Your task to perform on an android device: toggle improve location accuracy Image 0: 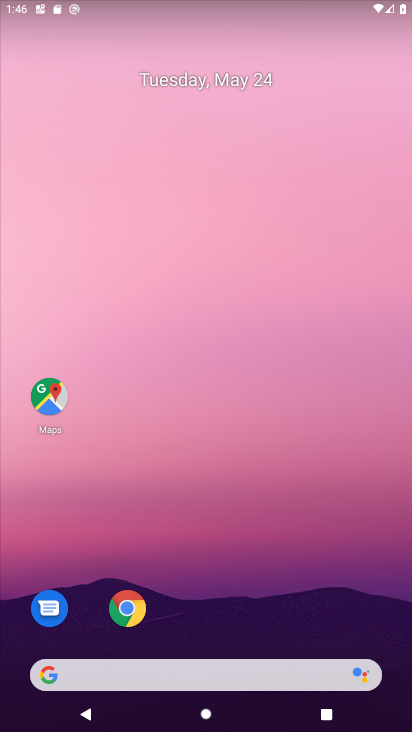
Step 0: drag from (313, 574) to (237, 126)
Your task to perform on an android device: toggle improve location accuracy Image 1: 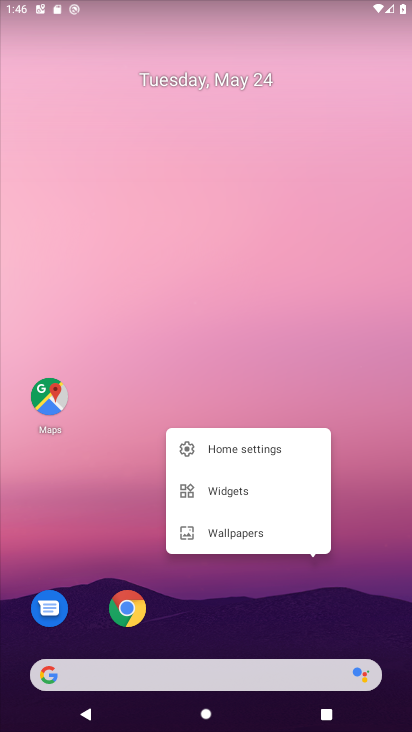
Step 1: click (237, 126)
Your task to perform on an android device: toggle improve location accuracy Image 2: 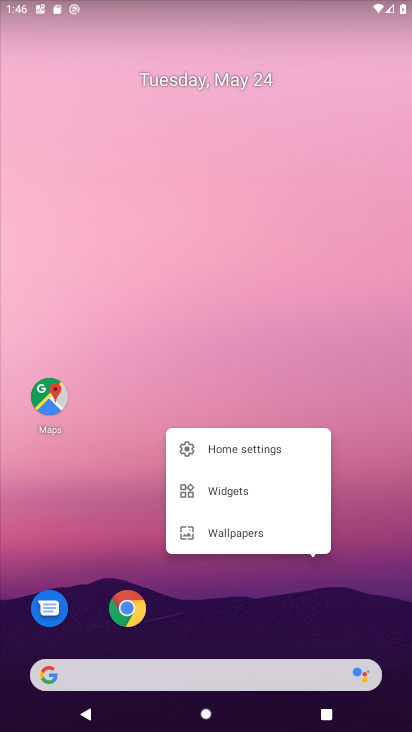
Step 2: click (237, 126)
Your task to perform on an android device: toggle improve location accuracy Image 3: 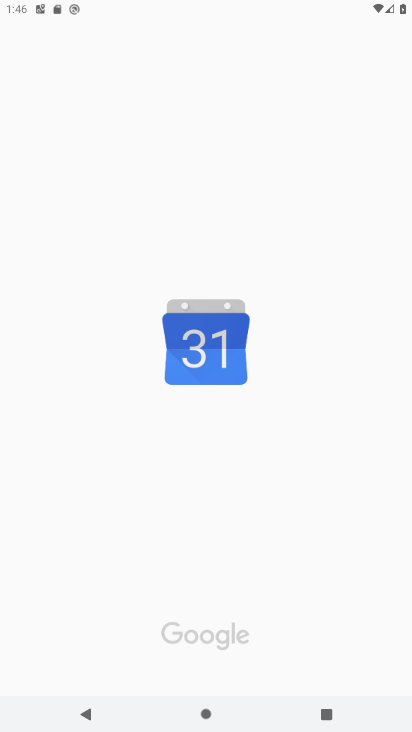
Step 3: click (284, 611)
Your task to perform on an android device: toggle improve location accuracy Image 4: 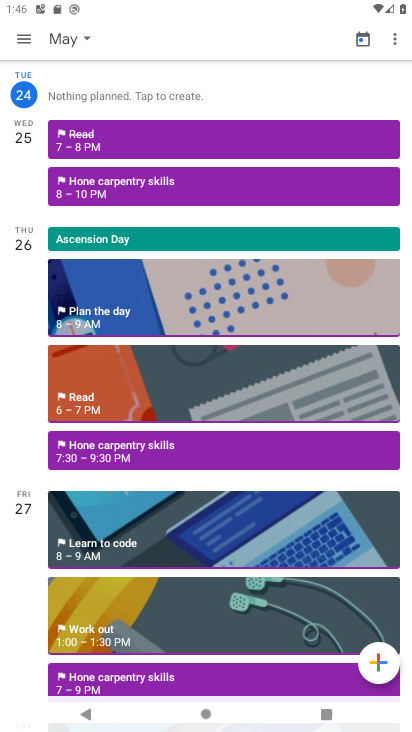
Step 4: press home button
Your task to perform on an android device: toggle improve location accuracy Image 5: 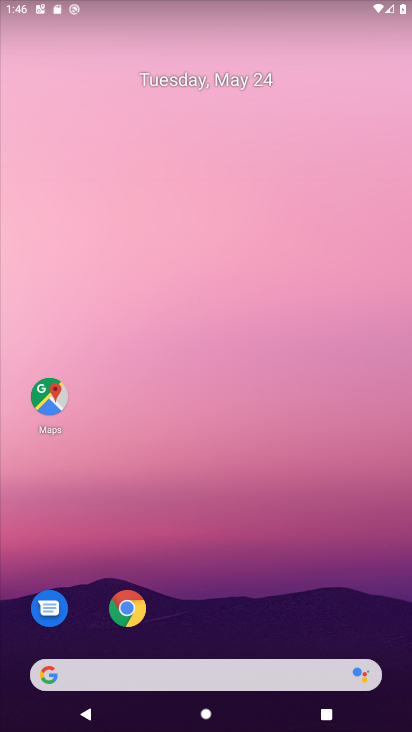
Step 5: drag from (294, 606) to (201, 86)
Your task to perform on an android device: toggle improve location accuracy Image 6: 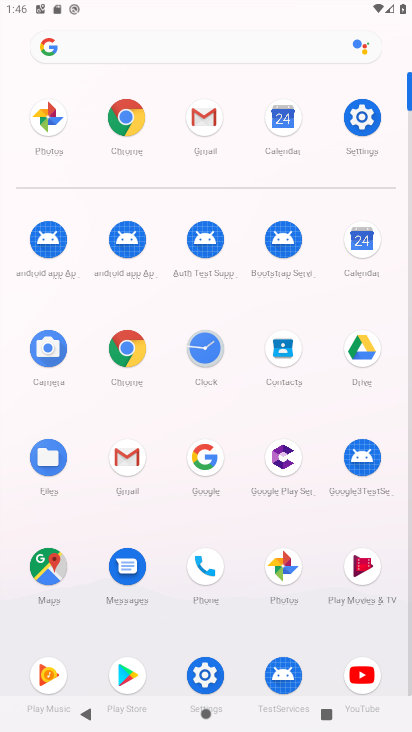
Step 6: click (347, 129)
Your task to perform on an android device: toggle improve location accuracy Image 7: 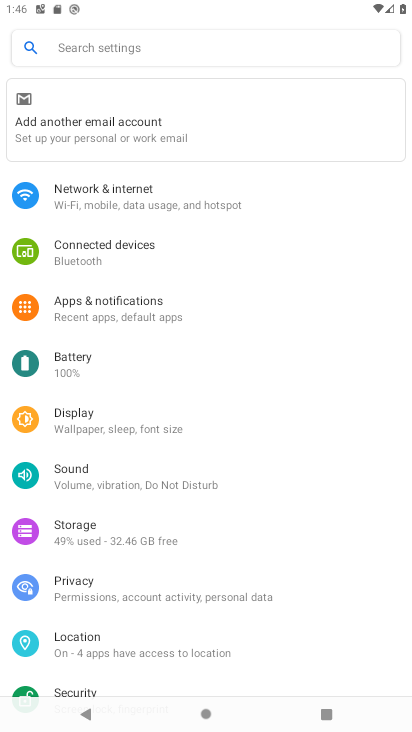
Step 7: click (219, 637)
Your task to perform on an android device: toggle improve location accuracy Image 8: 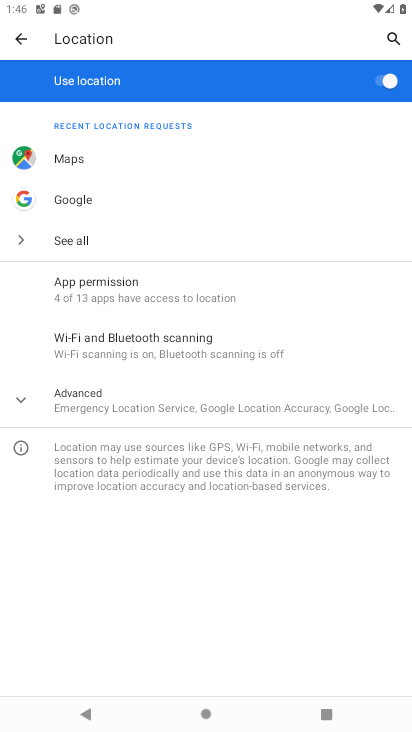
Step 8: click (202, 379)
Your task to perform on an android device: toggle improve location accuracy Image 9: 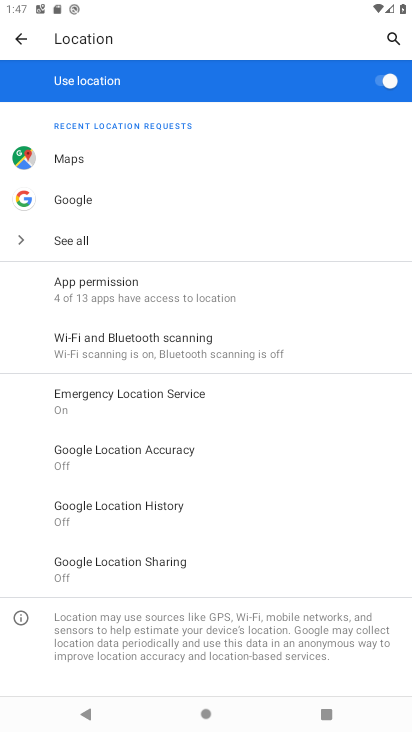
Step 9: click (165, 468)
Your task to perform on an android device: toggle improve location accuracy Image 10: 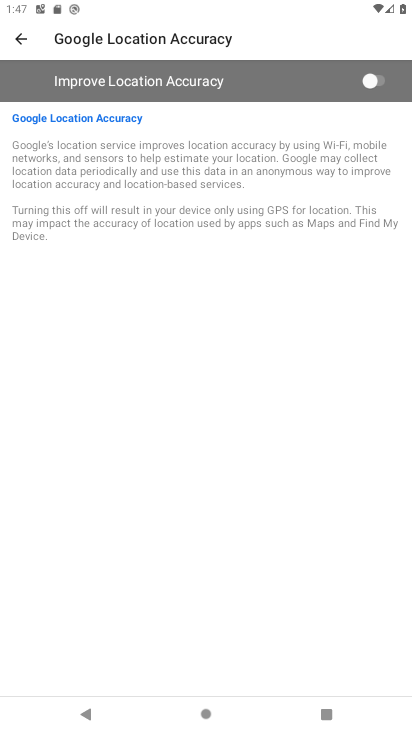
Step 10: click (347, 60)
Your task to perform on an android device: toggle improve location accuracy Image 11: 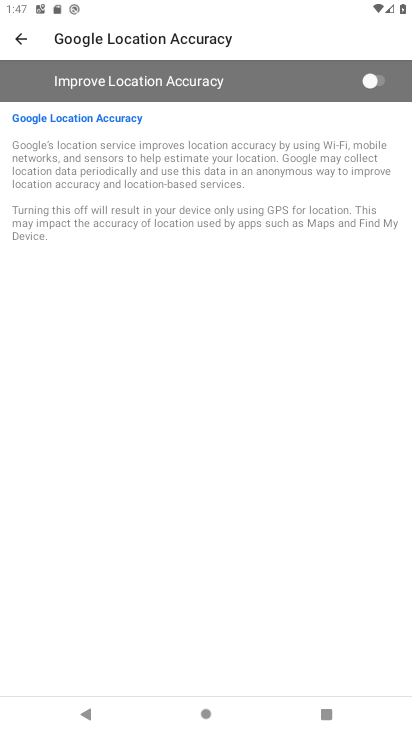
Step 11: task complete